Your task to perform on an android device: What's the weather going to be this weekend? Image 0: 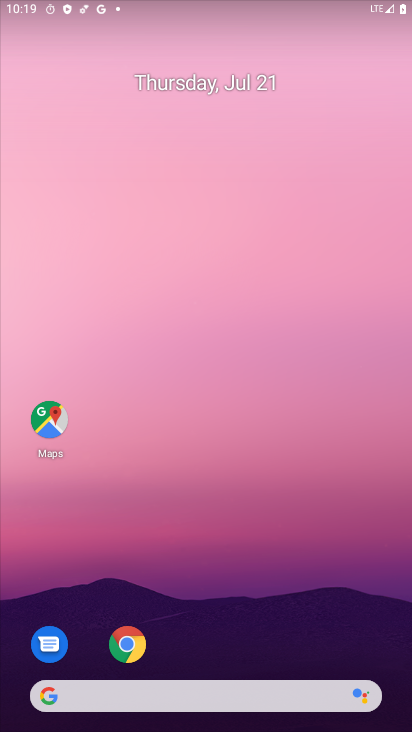
Step 0: click (238, 104)
Your task to perform on an android device: What's the weather going to be this weekend? Image 1: 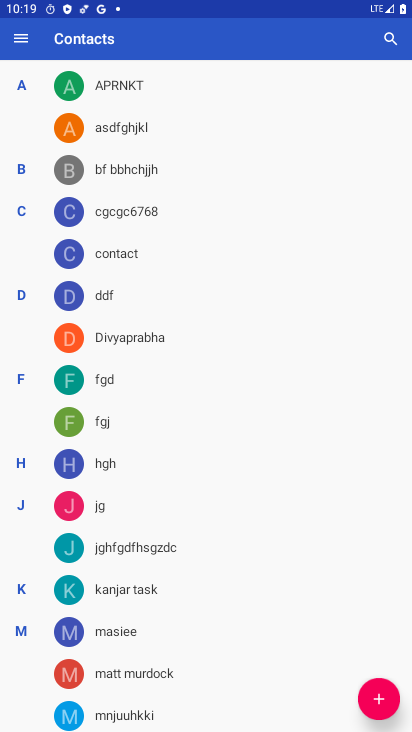
Step 1: press home button
Your task to perform on an android device: What's the weather going to be this weekend? Image 2: 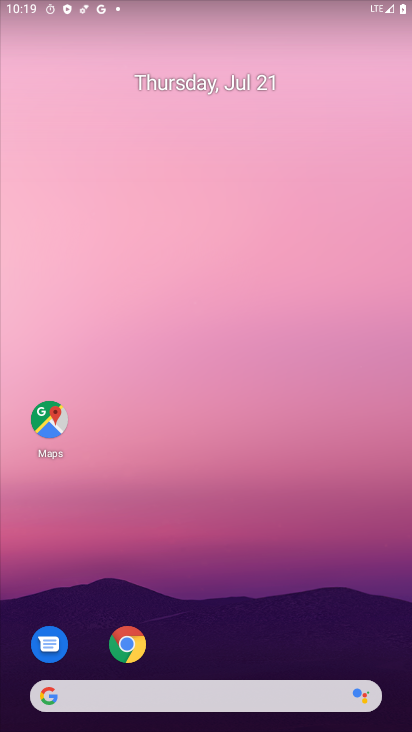
Step 2: click (206, 685)
Your task to perform on an android device: What's the weather going to be this weekend? Image 3: 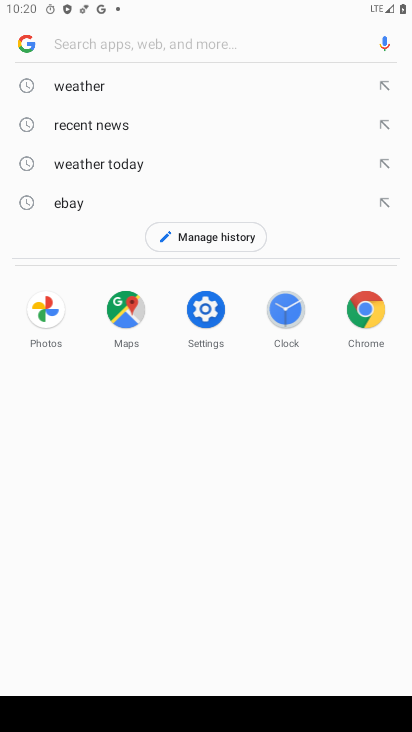
Step 3: click (103, 84)
Your task to perform on an android device: What's the weather going to be this weekend? Image 4: 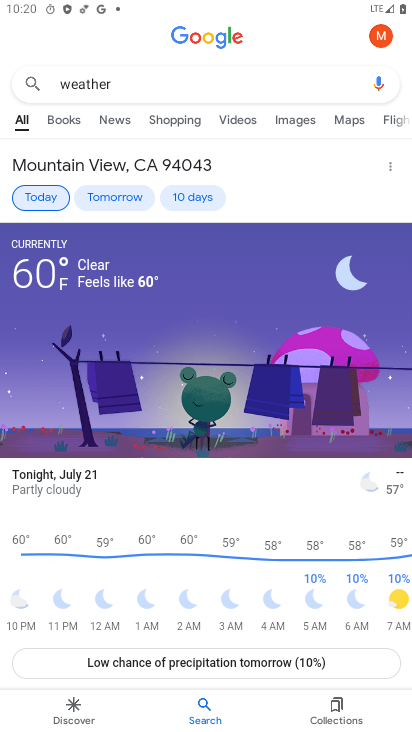
Step 4: click (194, 199)
Your task to perform on an android device: What's the weather going to be this weekend? Image 5: 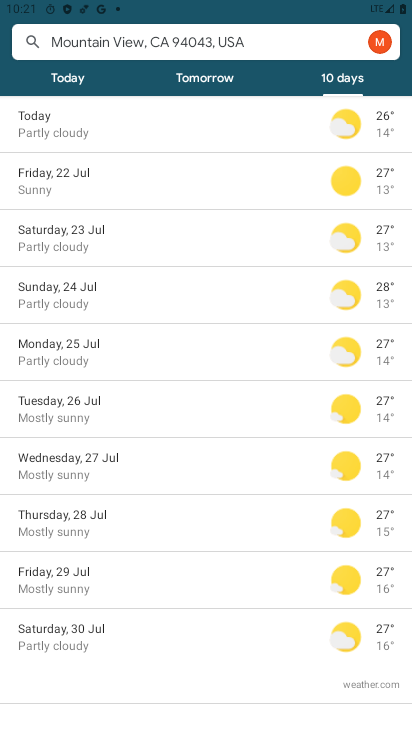
Step 5: click (91, 230)
Your task to perform on an android device: What's the weather going to be this weekend? Image 6: 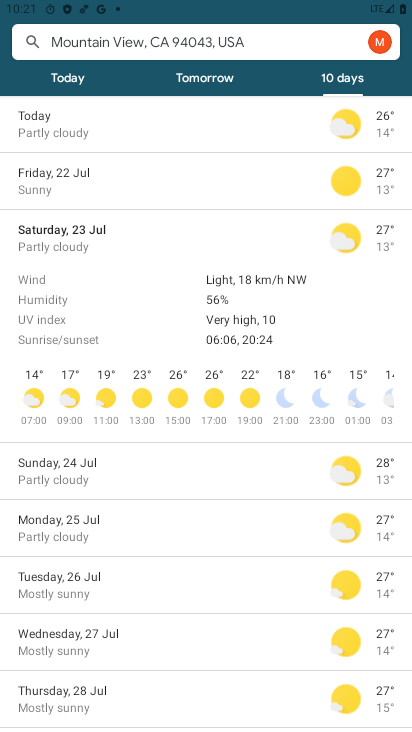
Step 6: click (121, 465)
Your task to perform on an android device: What's the weather going to be this weekend? Image 7: 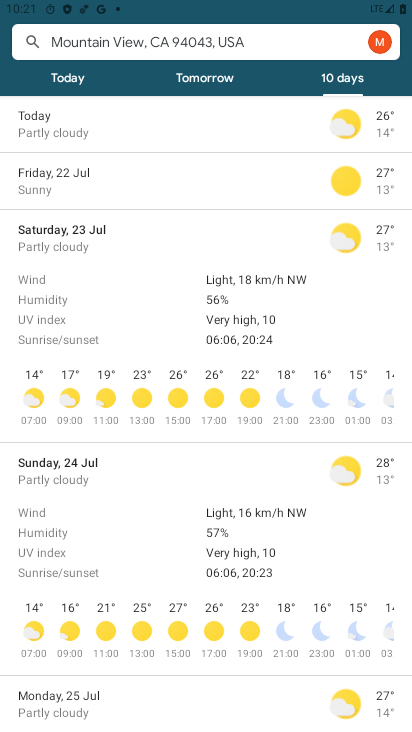
Step 7: task complete